Your task to perform on an android device: Open eBay Image 0: 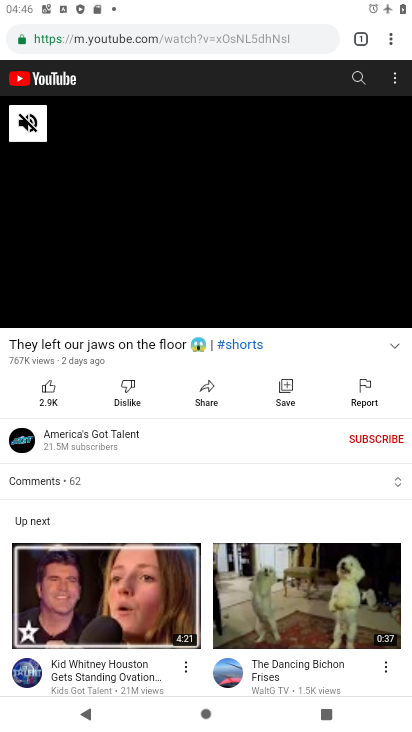
Step 0: press home button
Your task to perform on an android device: Open eBay Image 1: 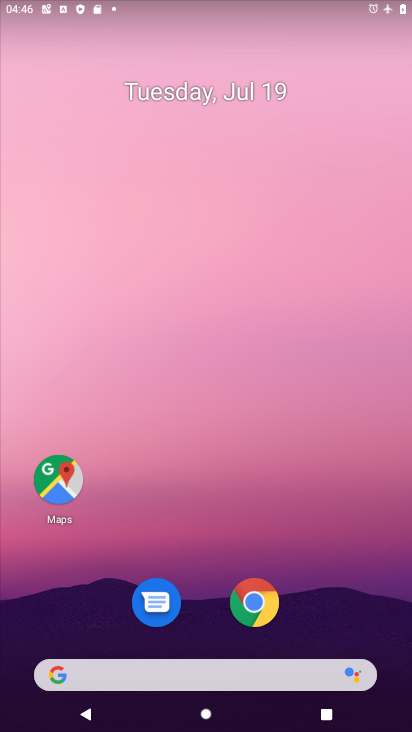
Step 1: click (250, 612)
Your task to perform on an android device: Open eBay Image 2: 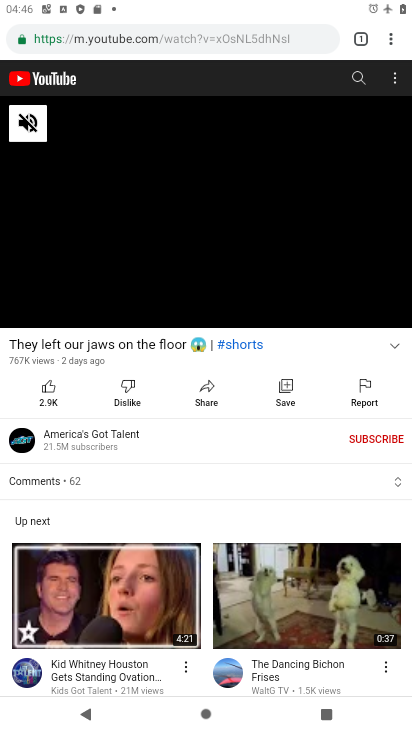
Step 2: press back button
Your task to perform on an android device: Open eBay Image 3: 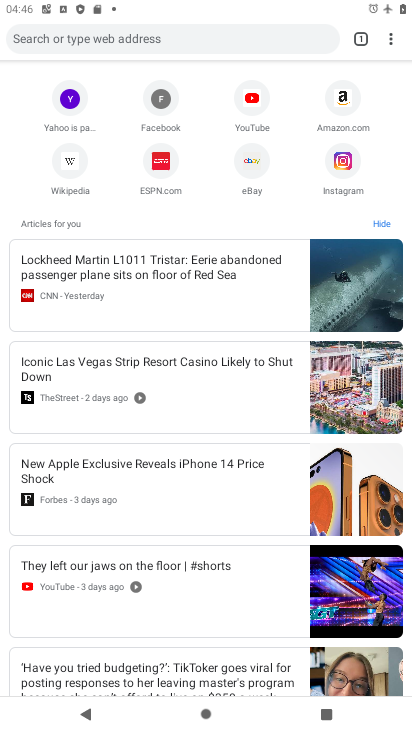
Step 3: click (261, 156)
Your task to perform on an android device: Open eBay Image 4: 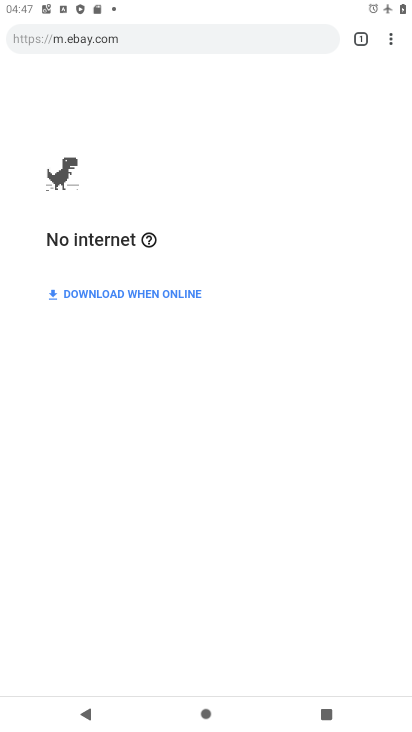
Step 4: drag from (366, 8) to (308, 593)
Your task to perform on an android device: Open eBay Image 5: 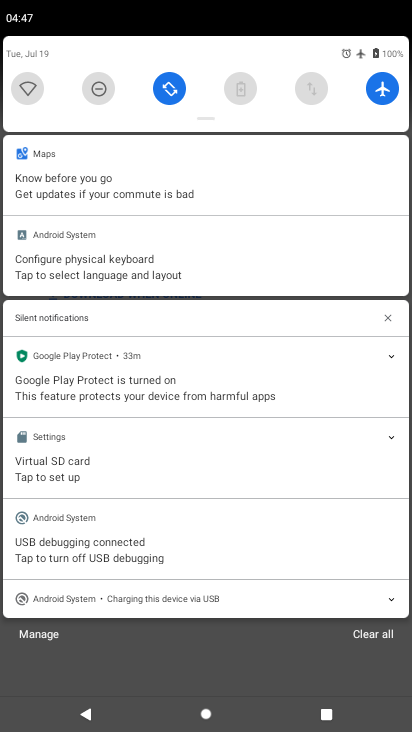
Step 5: click (377, 94)
Your task to perform on an android device: Open eBay Image 6: 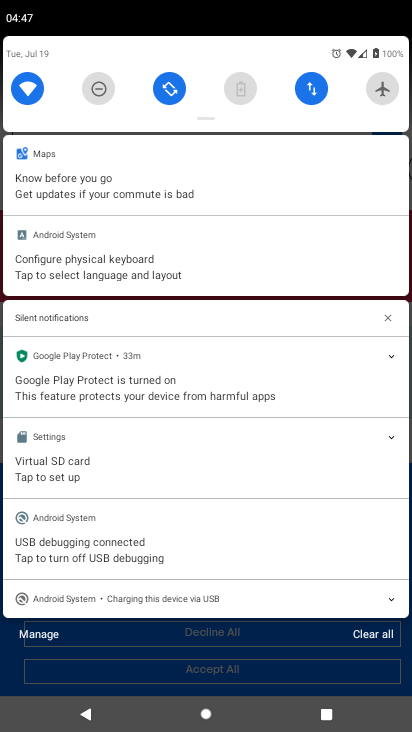
Step 6: task complete